Your task to perform on an android device: open wifi settings Image 0: 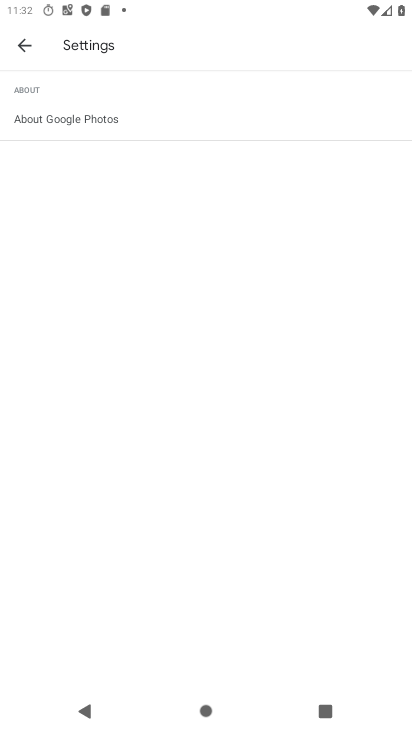
Step 0: press back button
Your task to perform on an android device: open wifi settings Image 1: 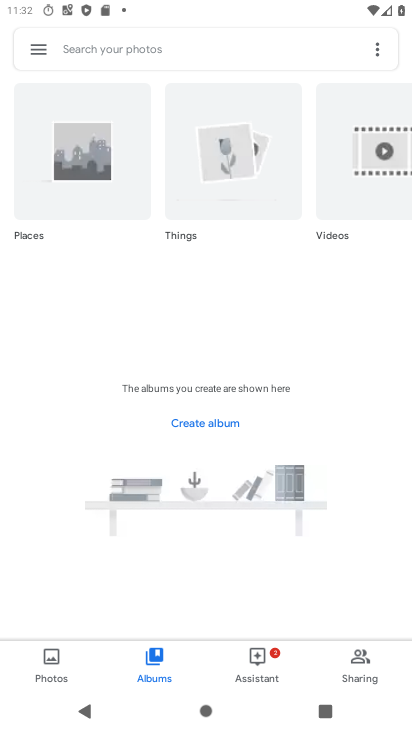
Step 1: press back button
Your task to perform on an android device: open wifi settings Image 2: 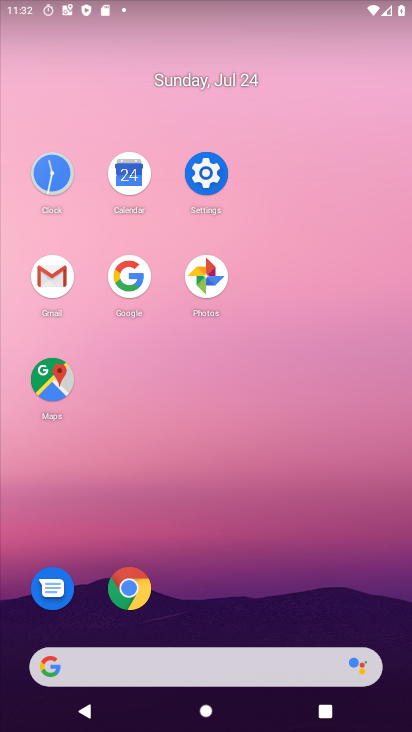
Step 2: click (231, 187)
Your task to perform on an android device: open wifi settings Image 3: 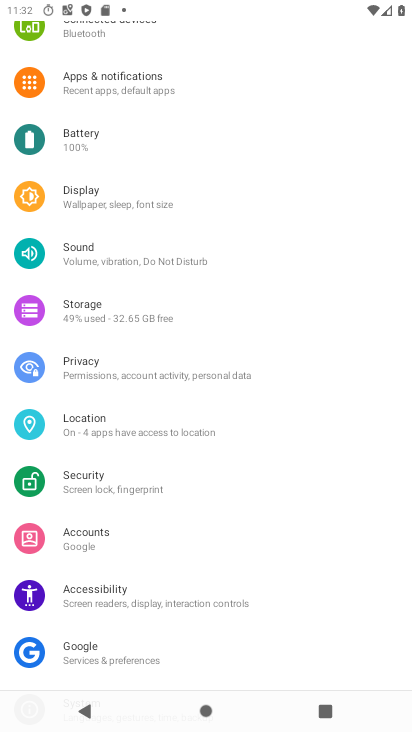
Step 3: drag from (154, 74) to (220, 378)
Your task to perform on an android device: open wifi settings Image 4: 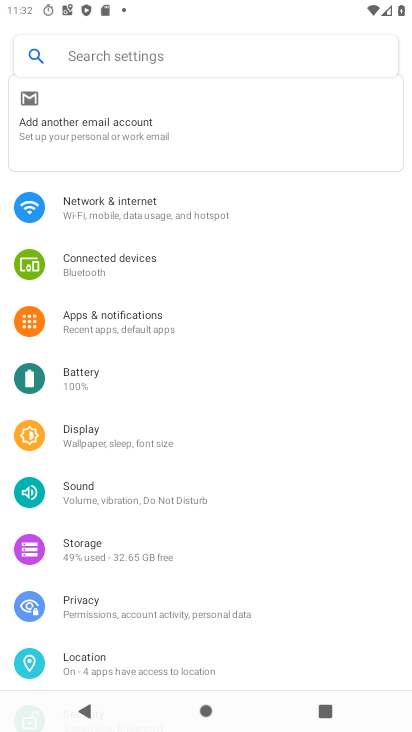
Step 4: click (239, 198)
Your task to perform on an android device: open wifi settings Image 5: 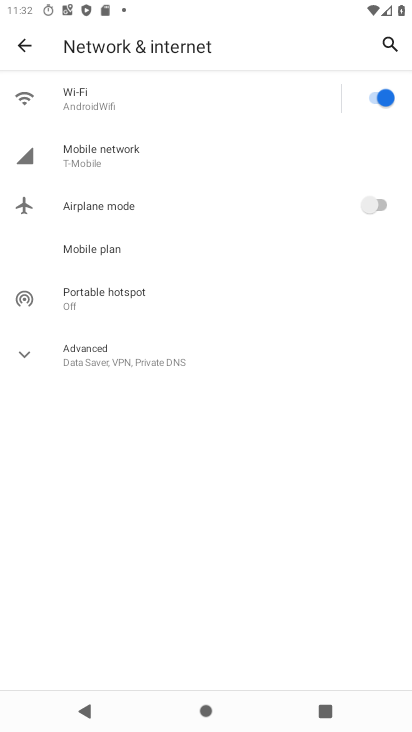
Step 5: click (177, 57)
Your task to perform on an android device: open wifi settings Image 6: 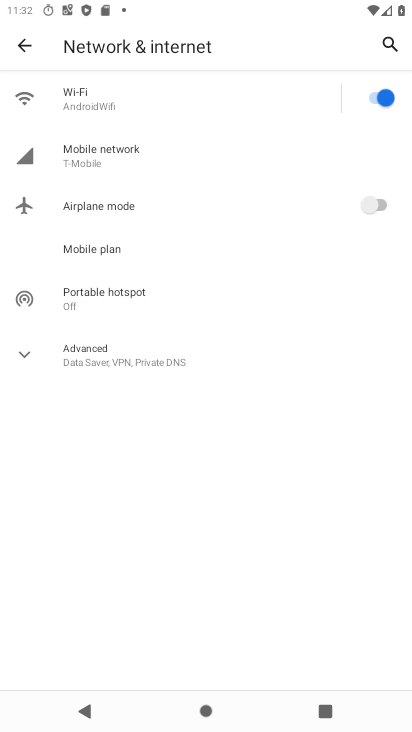
Step 6: click (173, 75)
Your task to perform on an android device: open wifi settings Image 7: 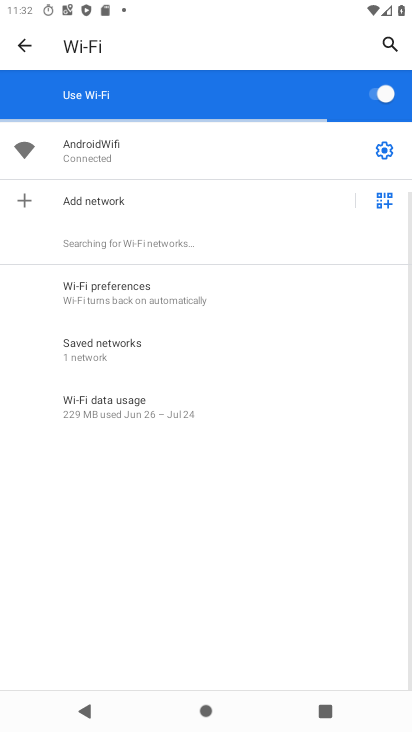
Step 7: click (383, 152)
Your task to perform on an android device: open wifi settings Image 8: 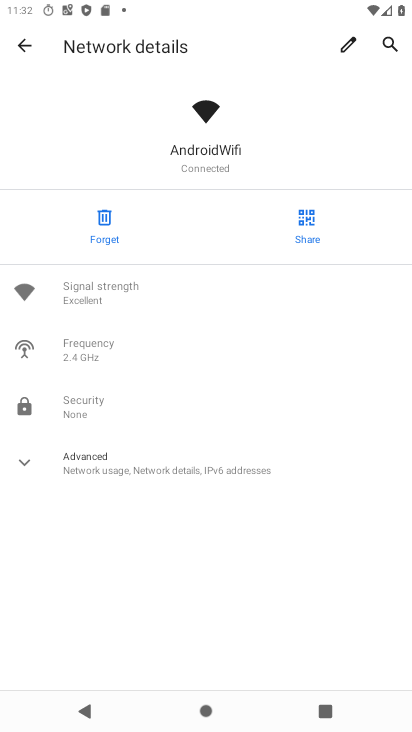
Step 8: task complete